Your task to perform on an android device: When is my next meeting? Image 0: 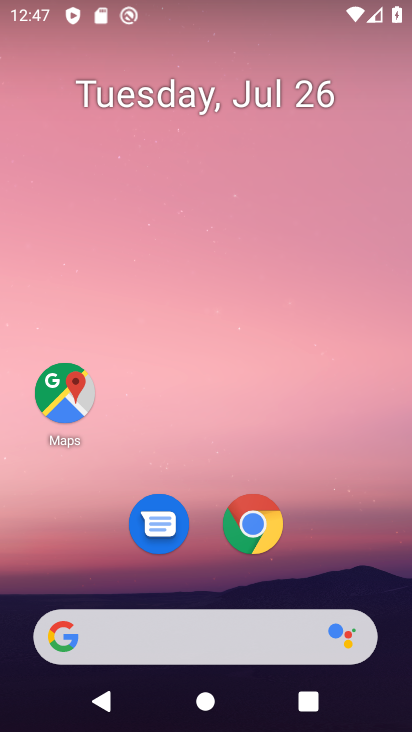
Step 0: drag from (316, 580) to (319, 48)
Your task to perform on an android device: When is my next meeting? Image 1: 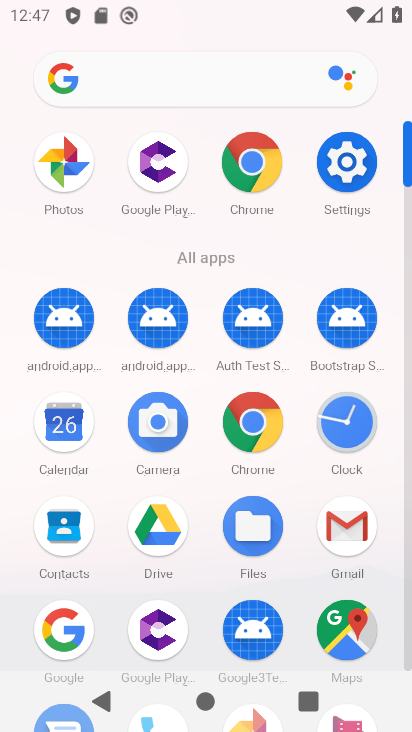
Step 1: click (65, 423)
Your task to perform on an android device: When is my next meeting? Image 2: 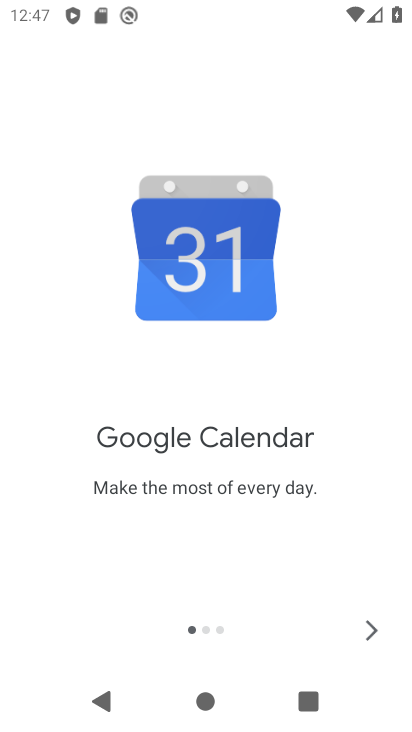
Step 2: click (371, 627)
Your task to perform on an android device: When is my next meeting? Image 3: 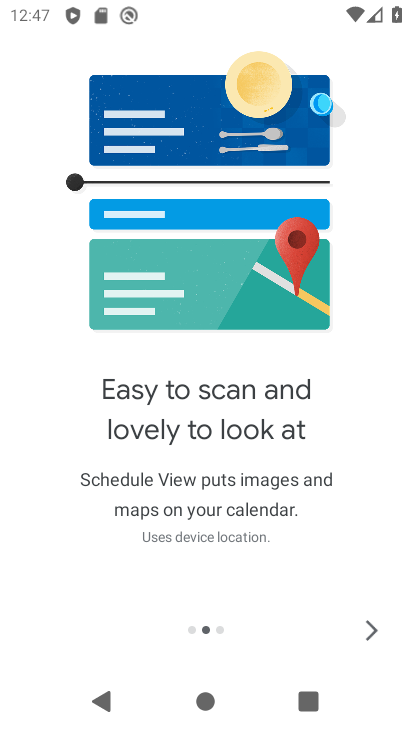
Step 3: click (371, 627)
Your task to perform on an android device: When is my next meeting? Image 4: 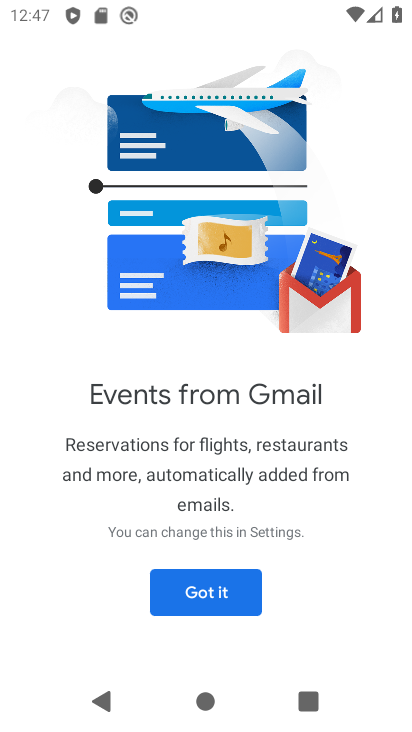
Step 4: click (246, 581)
Your task to perform on an android device: When is my next meeting? Image 5: 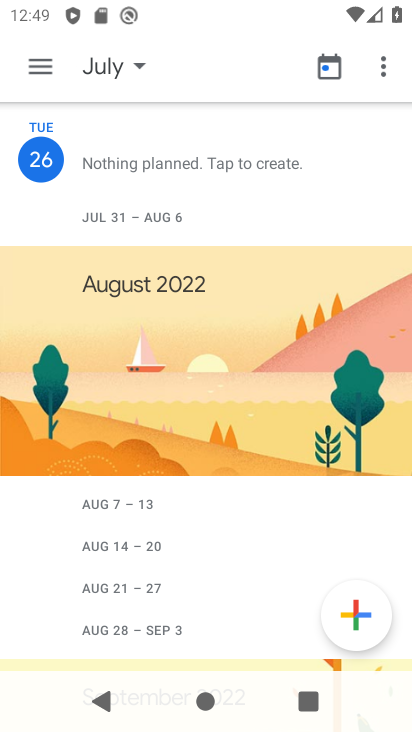
Step 5: task complete